Your task to perform on an android device: add a label to a message in the gmail app Image 0: 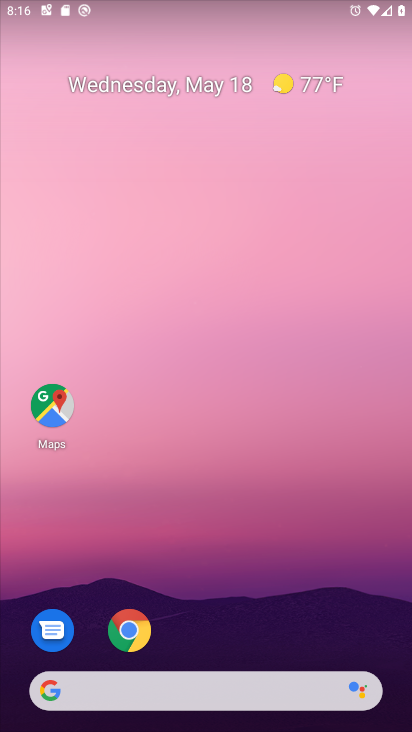
Step 0: drag from (312, 614) to (309, 186)
Your task to perform on an android device: add a label to a message in the gmail app Image 1: 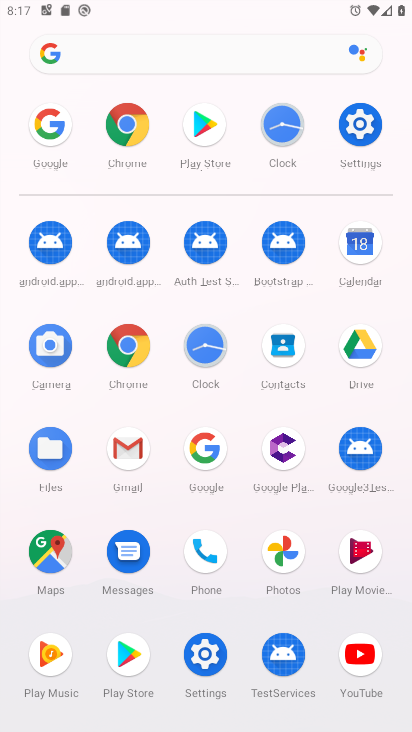
Step 1: click (122, 471)
Your task to perform on an android device: add a label to a message in the gmail app Image 2: 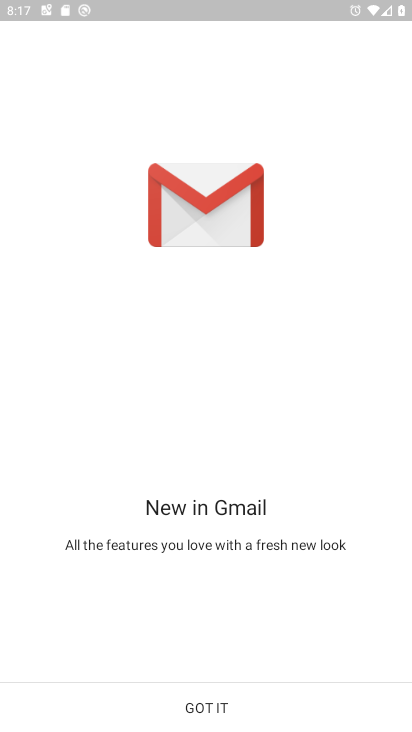
Step 2: click (209, 713)
Your task to perform on an android device: add a label to a message in the gmail app Image 3: 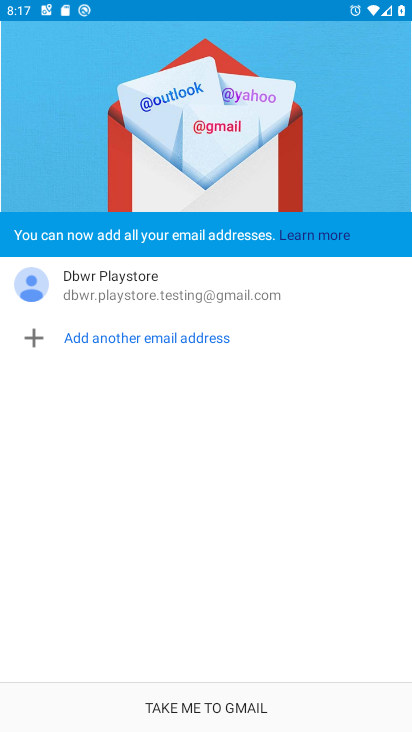
Step 3: click (215, 705)
Your task to perform on an android device: add a label to a message in the gmail app Image 4: 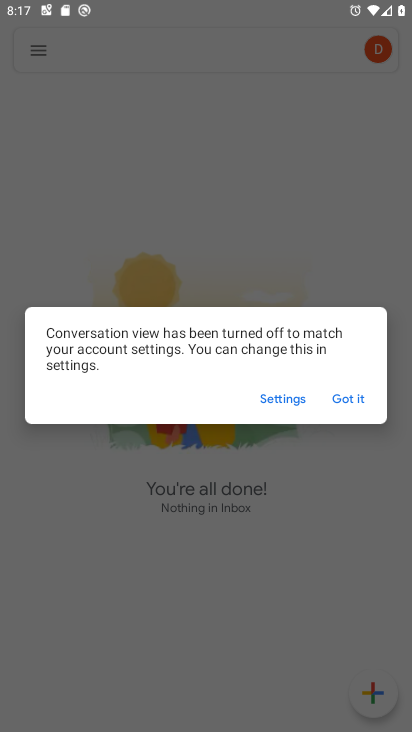
Step 4: click (350, 399)
Your task to perform on an android device: add a label to a message in the gmail app Image 5: 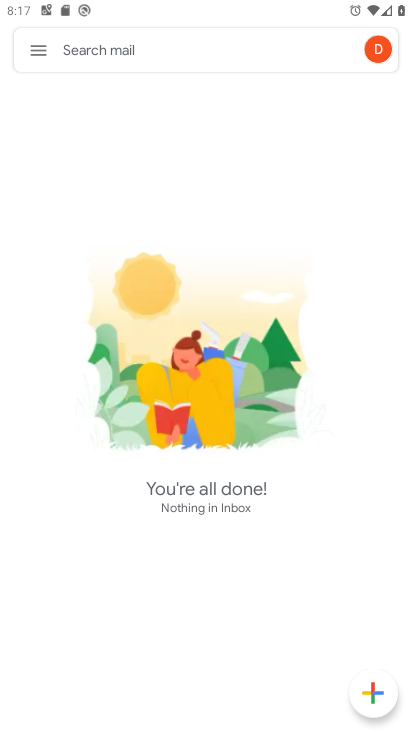
Step 5: click (35, 47)
Your task to perform on an android device: add a label to a message in the gmail app Image 6: 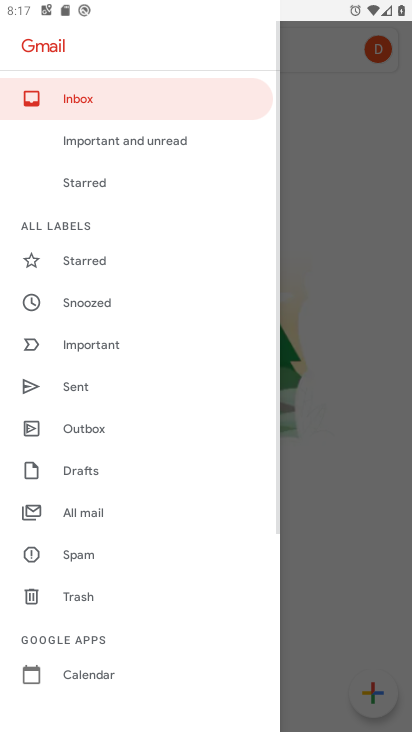
Step 6: click (103, 91)
Your task to perform on an android device: add a label to a message in the gmail app Image 7: 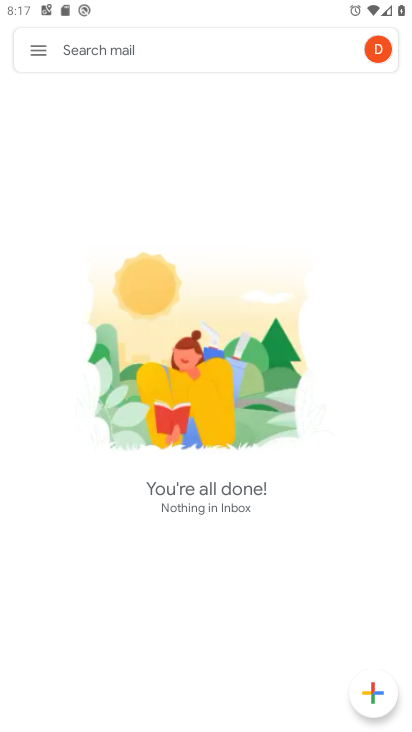
Step 7: task complete